Your task to perform on an android device: Open display settings Image 0: 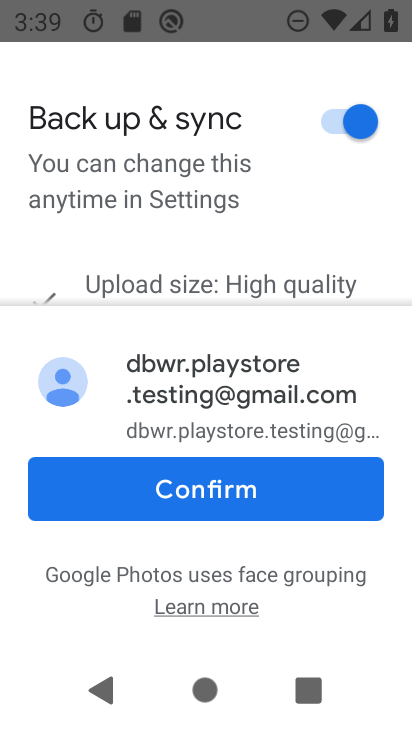
Step 0: press home button
Your task to perform on an android device: Open display settings Image 1: 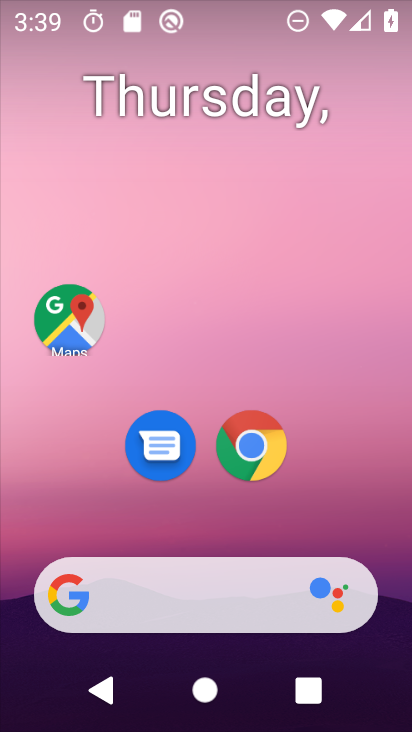
Step 1: drag from (321, 504) to (232, 95)
Your task to perform on an android device: Open display settings Image 2: 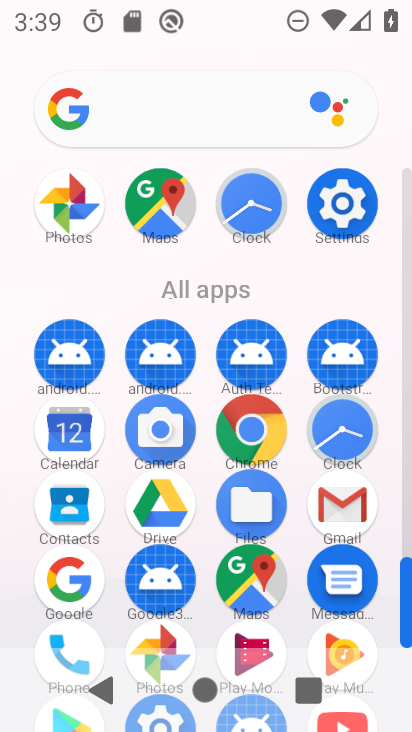
Step 2: click (341, 204)
Your task to perform on an android device: Open display settings Image 3: 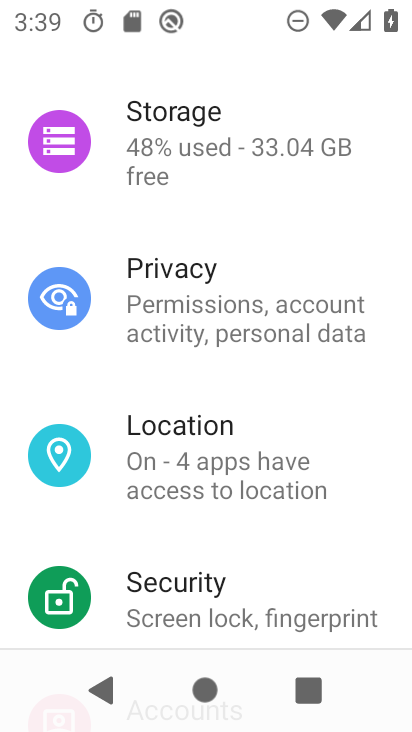
Step 3: drag from (248, 251) to (269, 373)
Your task to perform on an android device: Open display settings Image 4: 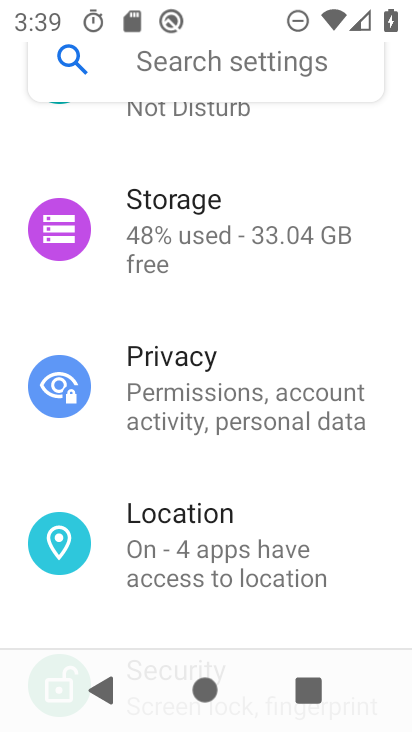
Step 4: drag from (264, 181) to (298, 352)
Your task to perform on an android device: Open display settings Image 5: 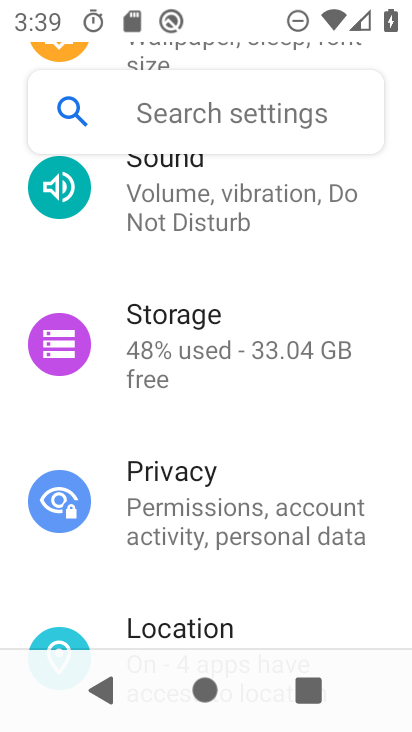
Step 5: drag from (270, 213) to (325, 392)
Your task to perform on an android device: Open display settings Image 6: 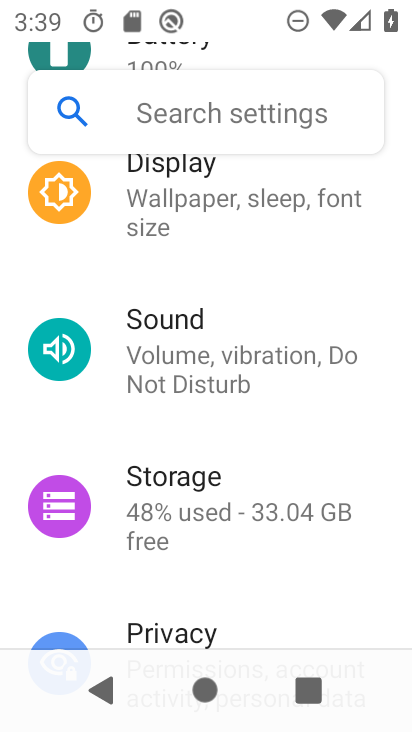
Step 6: drag from (280, 257) to (313, 444)
Your task to perform on an android device: Open display settings Image 7: 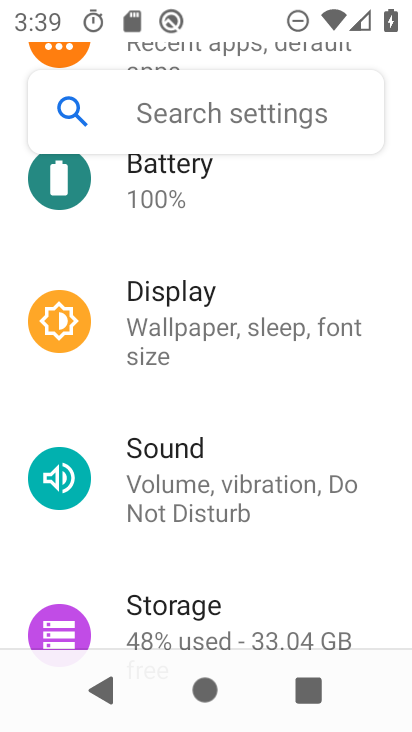
Step 7: click (207, 295)
Your task to perform on an android device: Open display settings Image 8: 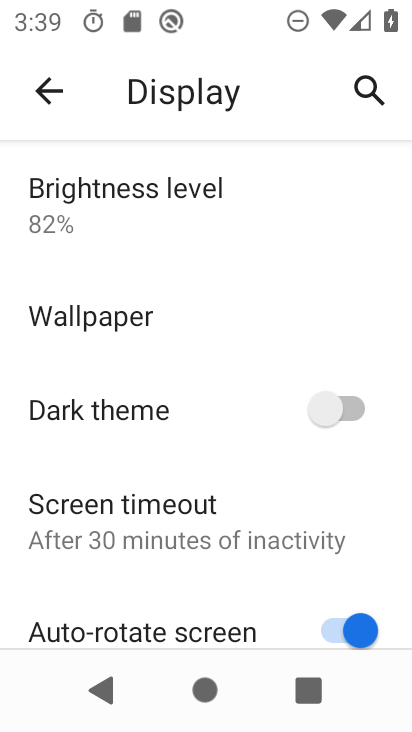
Step 8: task complete